Your task to perform on an android device: open a new tab in the chrome app Image 0: 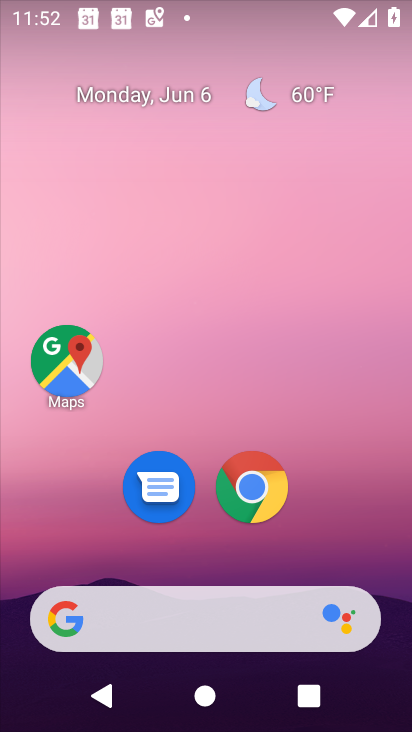
Step 0: click (270, 499)
Your task to perform on an android device: open a new tab in the chrome app Image 1: 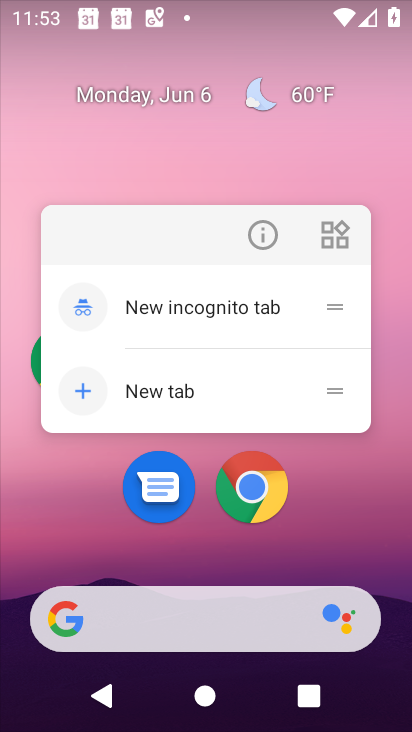
Step 1: click (250, 485)
Your task to perform on an android device: open a new tab in the chrome app Image 2: 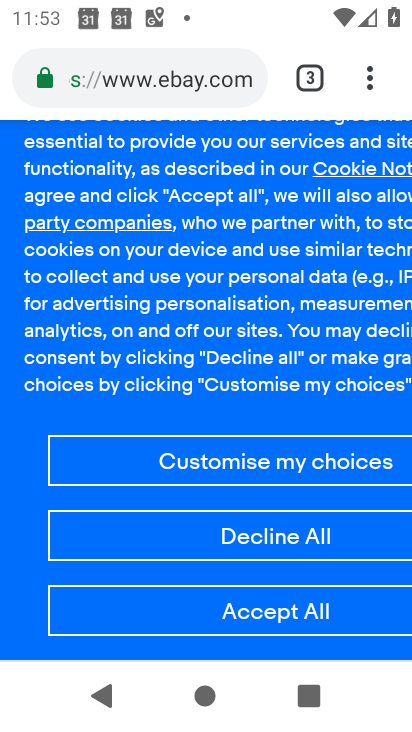
Step 2: click (368, 61)
Your task to perform on an android device: open a new tab in the chrome app Image 3: 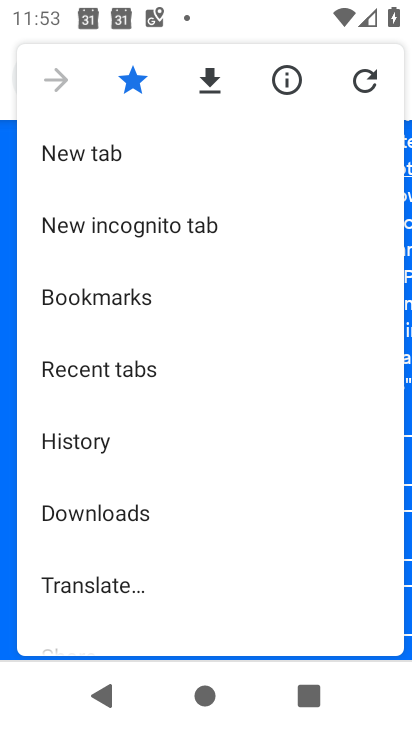
Step 3: click (100, 166)
Your task to perform on an android device: open a new tab in the chrome app Image 4: 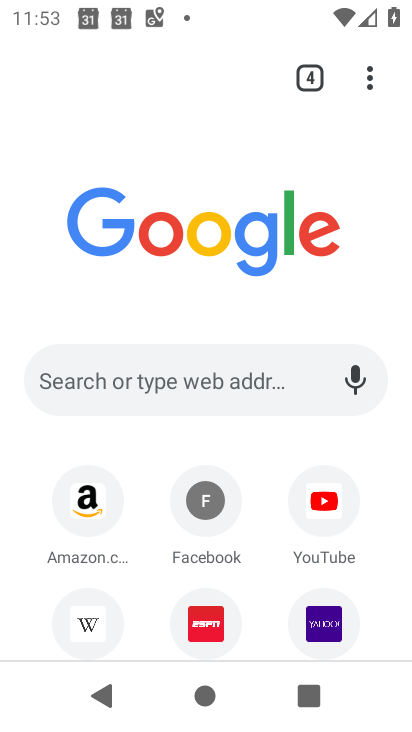
Step 4: task complete